Your task to perform on an android device: Go to CNN.com Image 0: 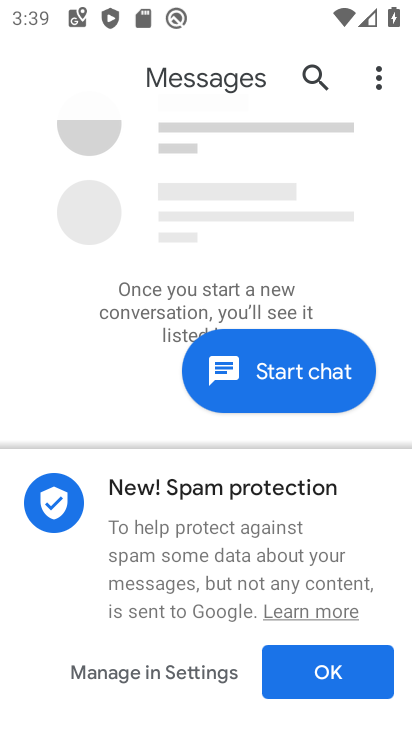
Step 0: press home button
Your task to perform on an android device: Go to CNN.com Image 1: 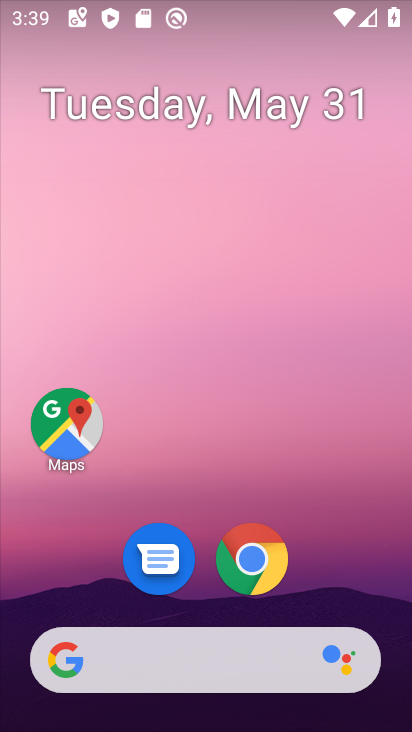
Step 1: click (252, 554)
Your task to perform on an android device: Go to CNN.com Image 2: 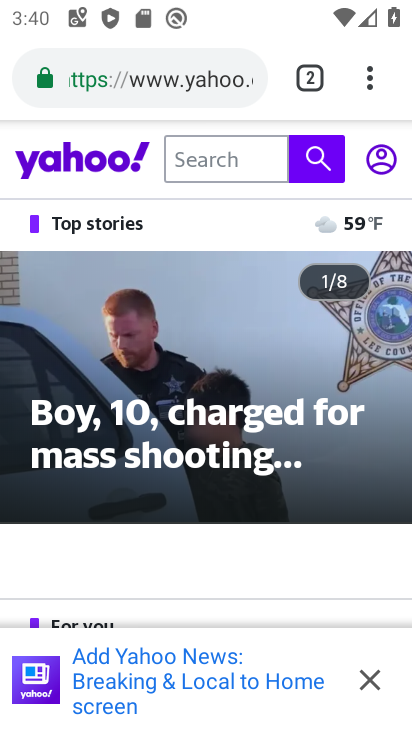
Step 2: click (366, 86)
Your task to perform on an android device: Go to CNN.com Image 3: 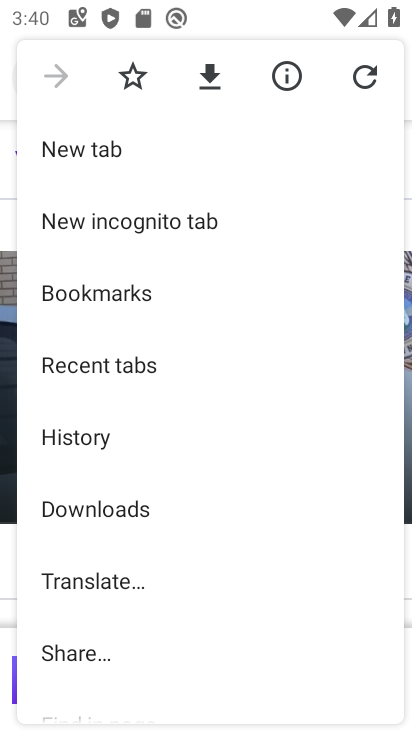
Step 3: click (87, 150)
Your task to perform on an android device: Go to CNN.com Image 4: 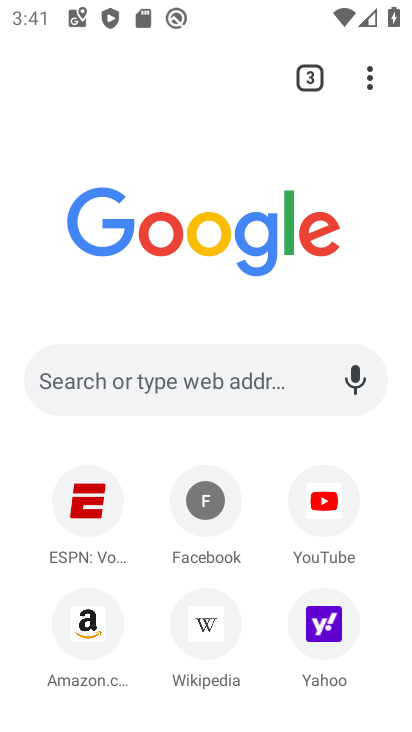
Step 4: click (218, 374)
Your task to perform on an android device: Go to CNN.com Image 5: 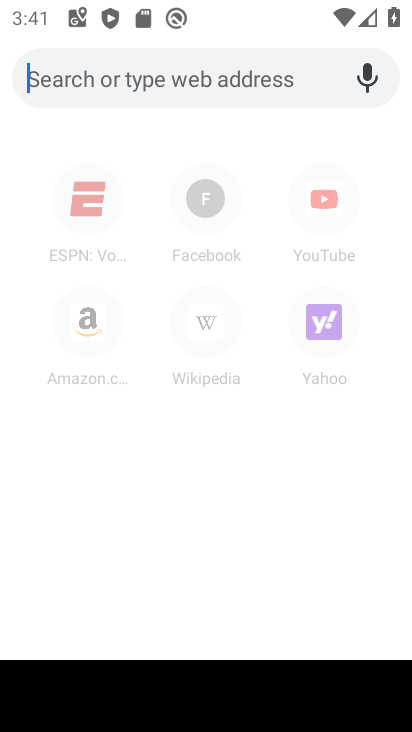
Step 5: type "CNN.com"
Your task to perform on an android device: Go to CNN.com Image 6: 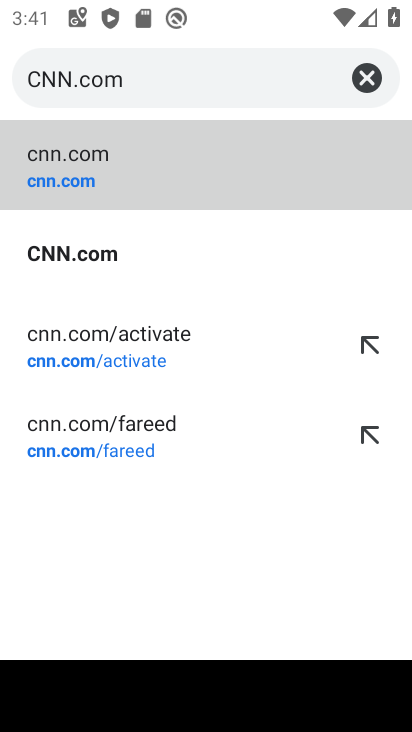
Step 6: click (120, 159)
Your task to perform on an android device: Go to CNN.com Image 7: 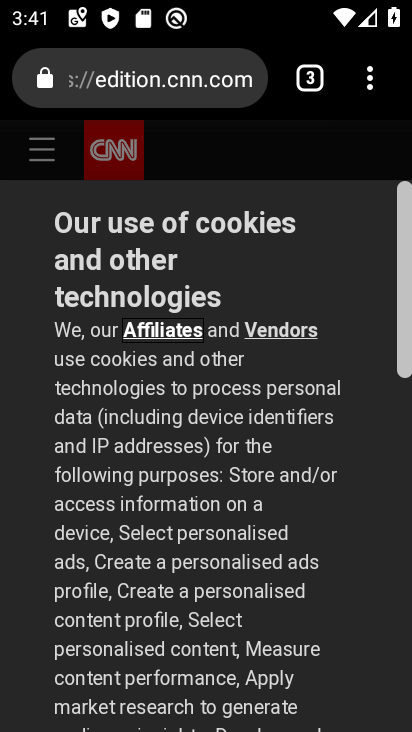
Step 7: task complete